Your task to perform on an android device: open app "LiveIn - Share Your Moment" (install if not already installed) and enter user name: "certifies@gmail.com" and password: "compartmented" Image 0: 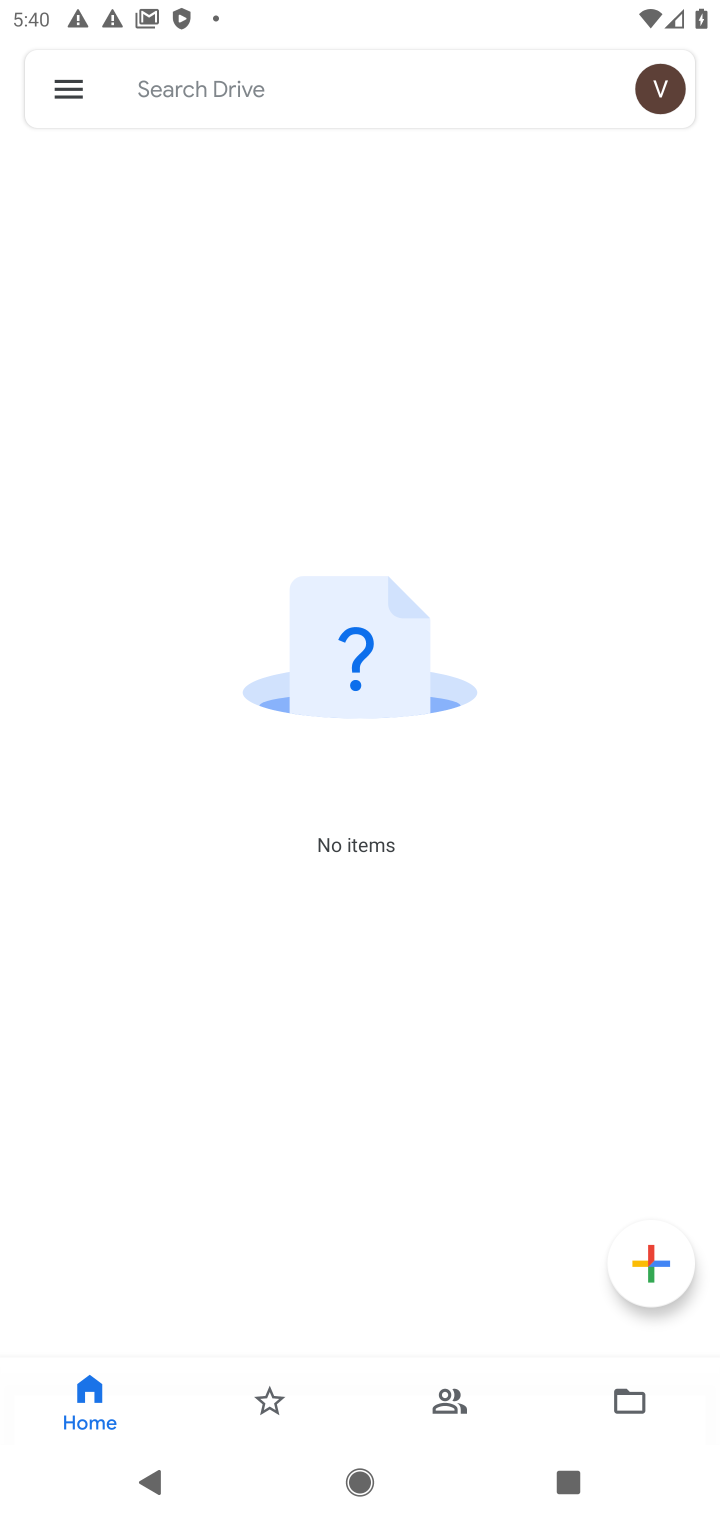
Step 0: press back button
Your task to perform on an android device: open app "LiveIn - Share Your Moment" (install if not already installed) and enter user name: "certifies@gmail.com" and password: "compartmented" Image 1: 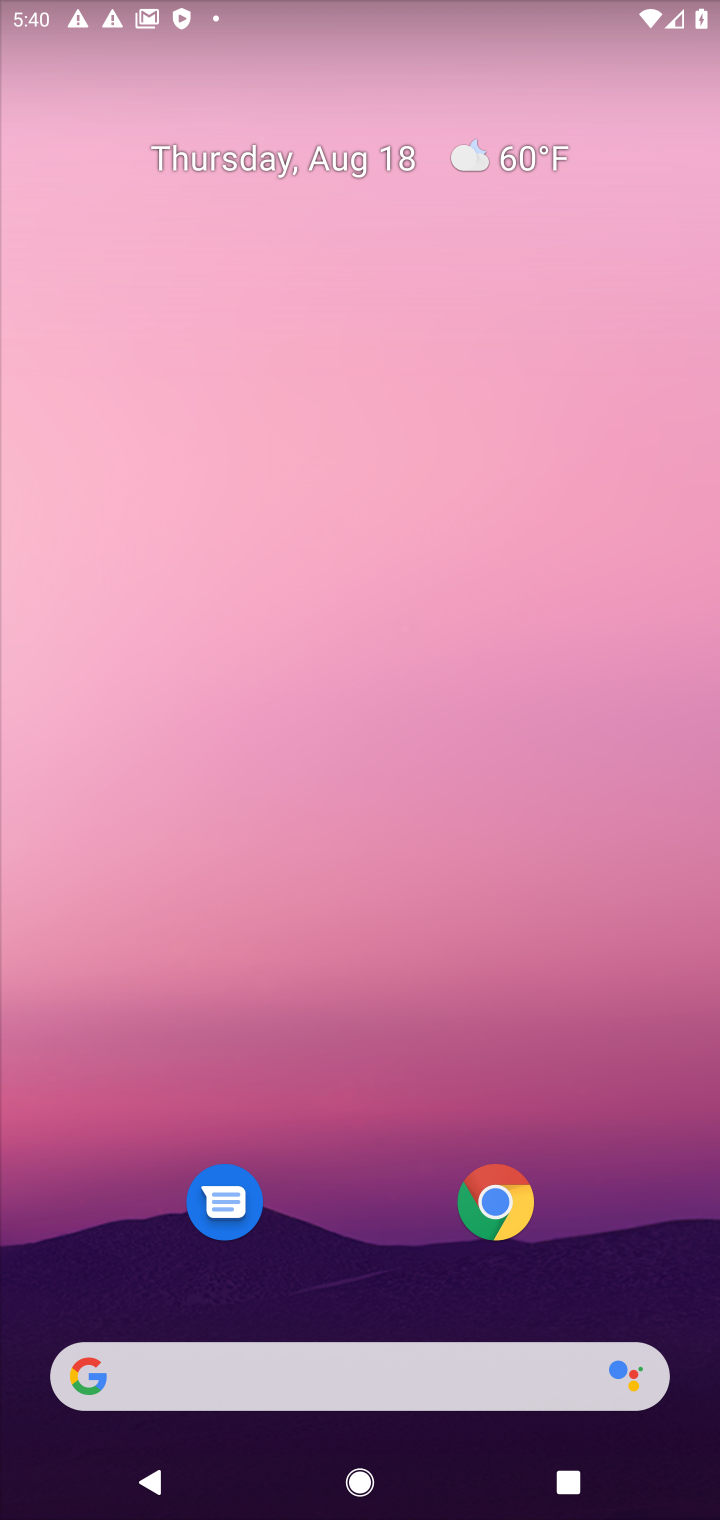
Step 1: drag from (350, 1066) to (206, 202)
Your task to perform on an android device: open app "LiveIn - Share Your Moment" (install if not already installed) and enter user name: "certifies@gmail.com" and password: "compartmented" Image 2: 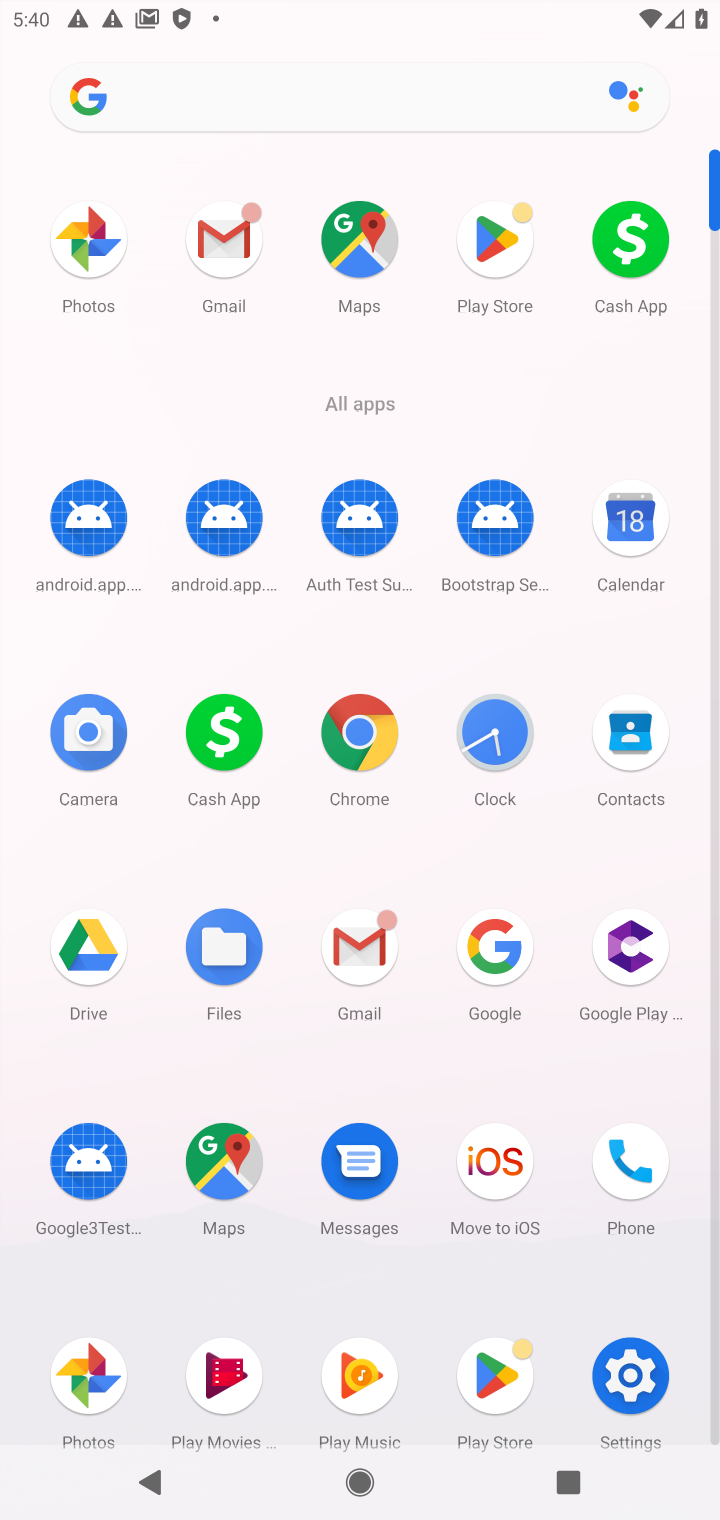
Step 2: click (500, 235)
Your task to perform on an android device: open app "LiveIn - Share Your Moment" (install if not already installed) and enter user name: "certifies@gmail.com" and password: "compartmented" Image 3: 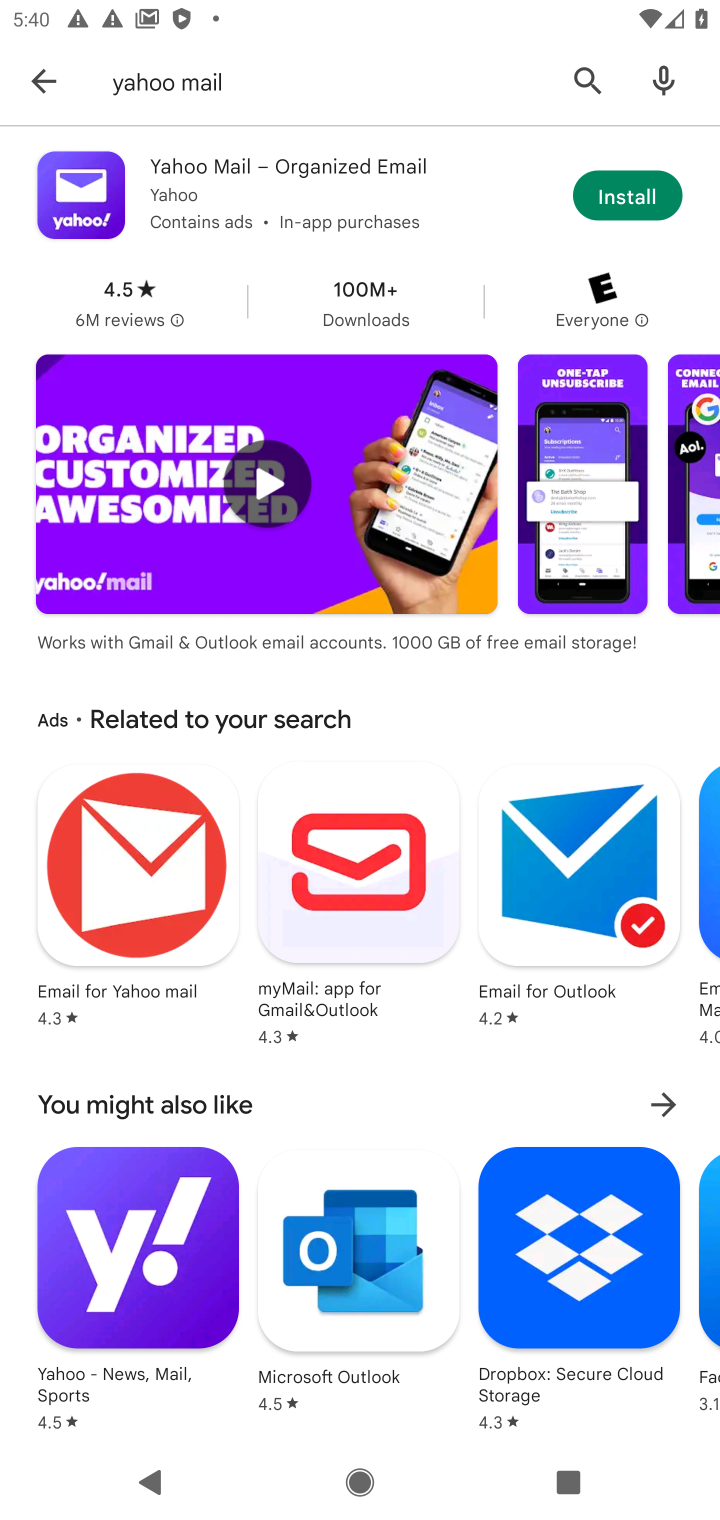
Step 3: click (600, 74)
Your task to perform on an android device: open app "LiveIn - Share Your Moment" (install if not already installed) and enter user name: "certifies@gmail.com" and password: "compartmented" Image 4: 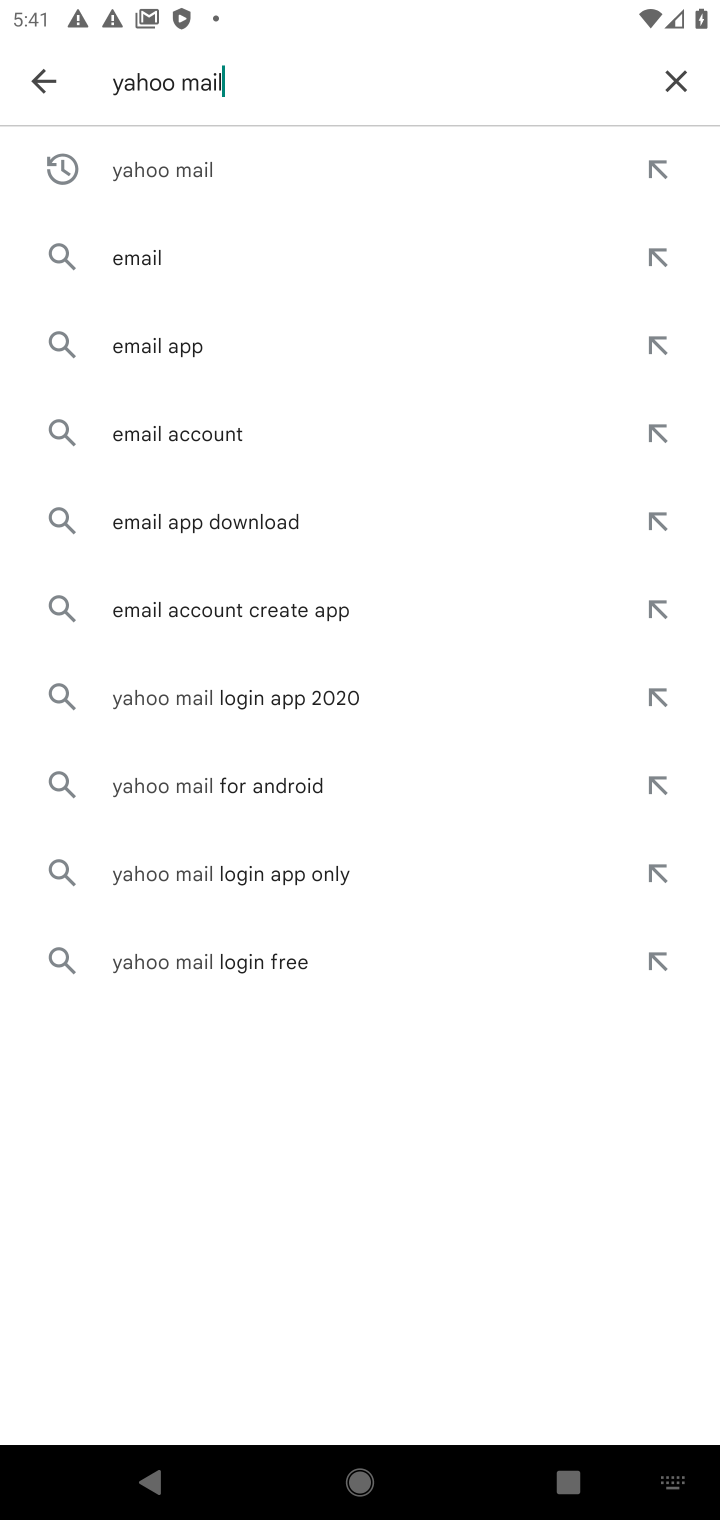
Step 4: click (685, 92)
Your task to perform on an android device: open app "LiveIn - Share Your Moment" (install if not already installed) and enter user name: "certifies@gmail.com" and password: "compartmented" Image 5: 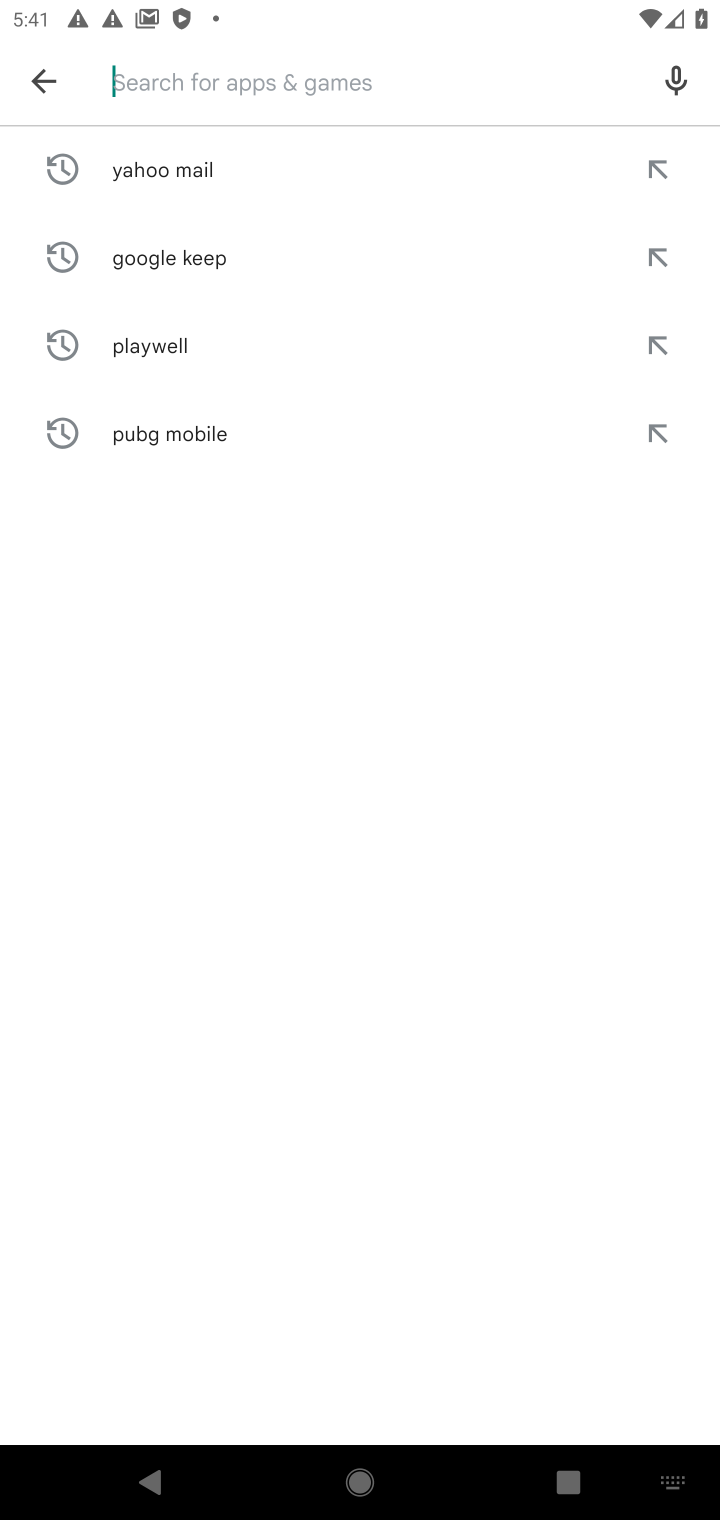
Step 5: type "livein"
Your task to perform on an android device: open app "LiveIn - Share Your Moment" (install if not already installed) and enter user name: "certifies@gmail.com" and password: "compartmented" Image 6: 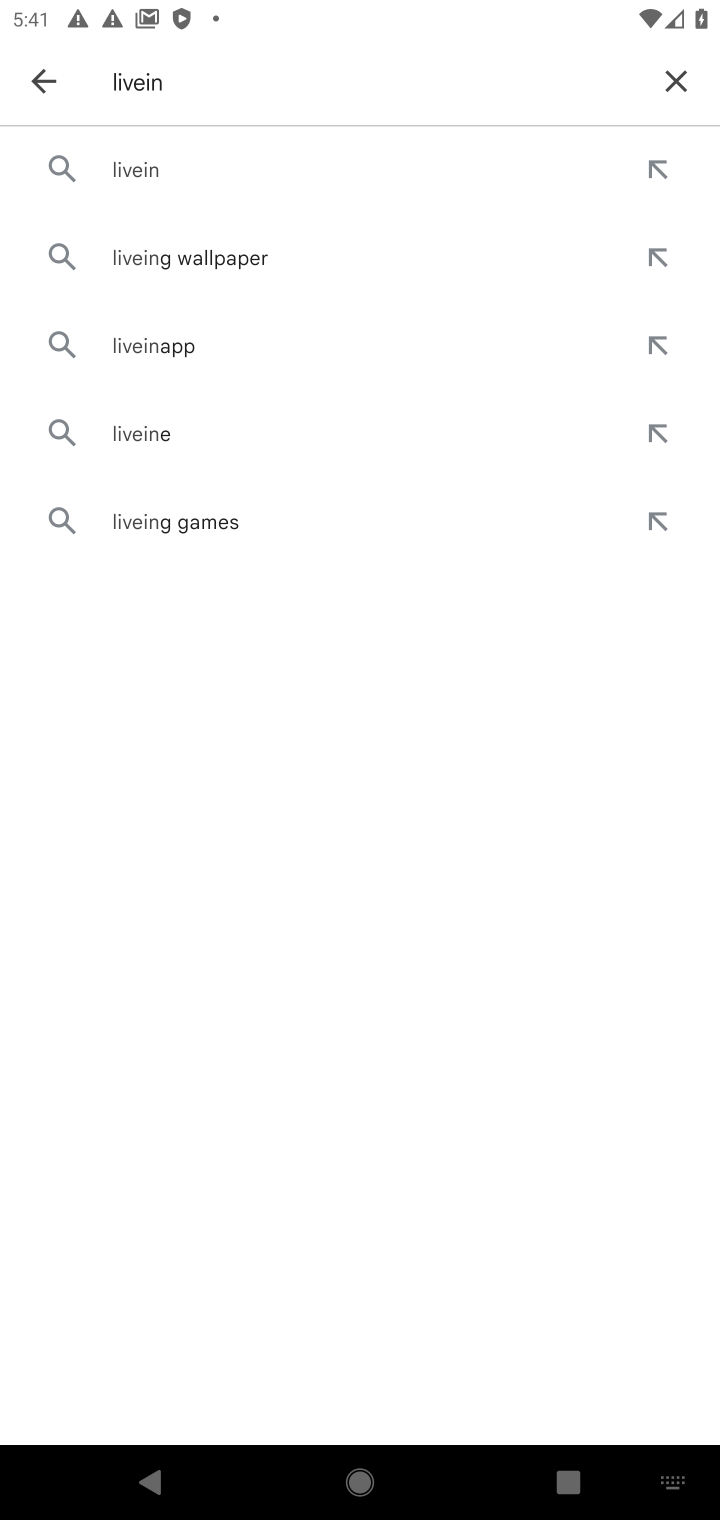
Step 6: click (163, 162)
Your task to perform on an android device: open app "LiveIn - Share Your Moment" (install if not already installed) and enter user name: "certifies@gmail.com" and password: "compartmented" Image 7: 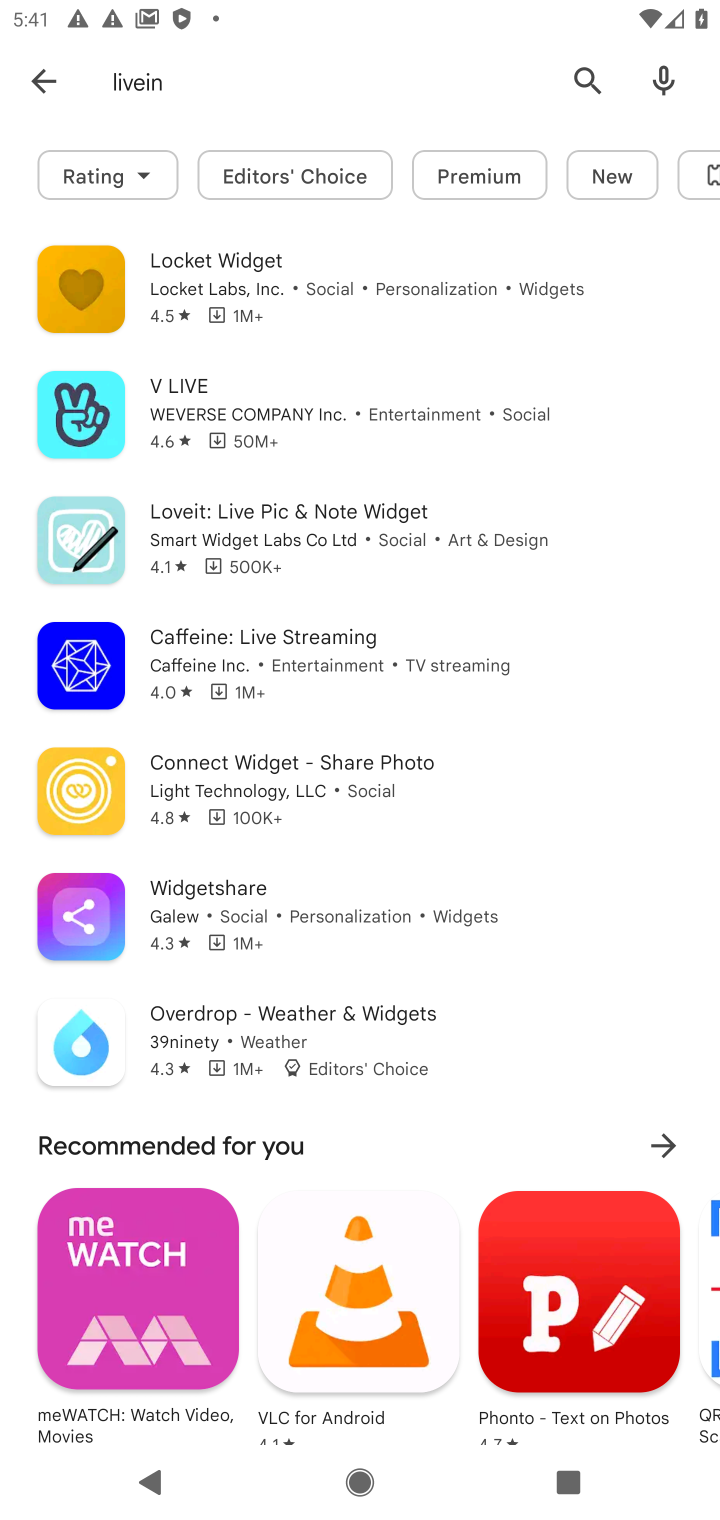
Step 7: task complete